Your task to perform on an android device: allow notifications from all sites in the chrome app Image 0: 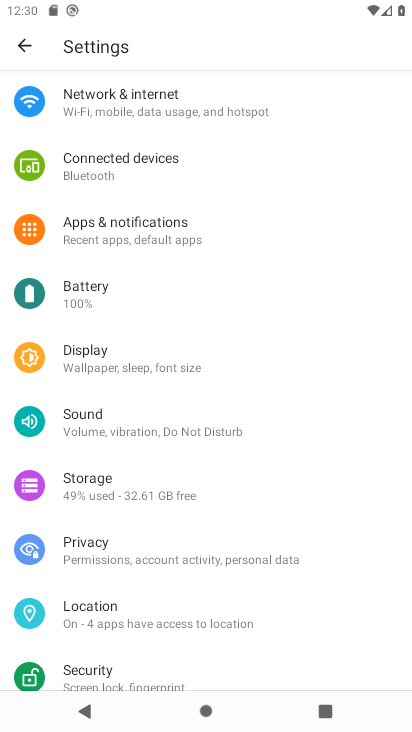
Step 0: press home button
Your task to perform on an android device: allow notifications from all sites in the chrome app Image 1: 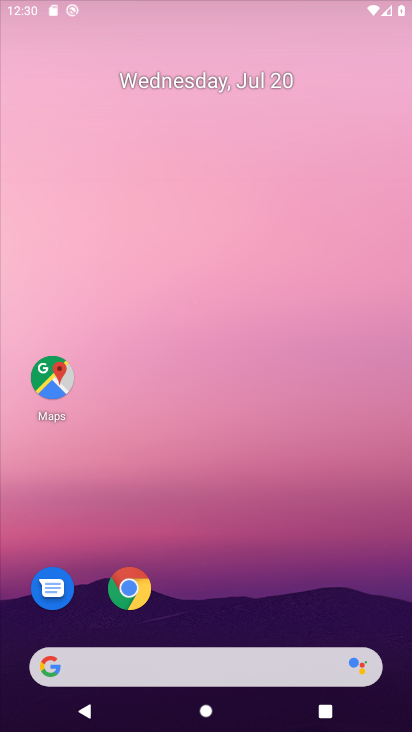
Step 1: drag from (172, 526) to (172, 159)
Your task to perform on an android device: allow notifications from all sites in the chrome app Image 2: 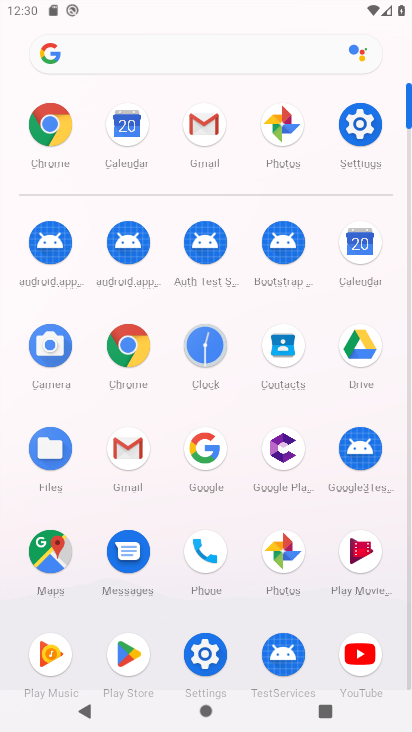
Step 2: click (135, 342)
Your task to perform on an android device: allow notifications from all sites in the chrome app Image 3: 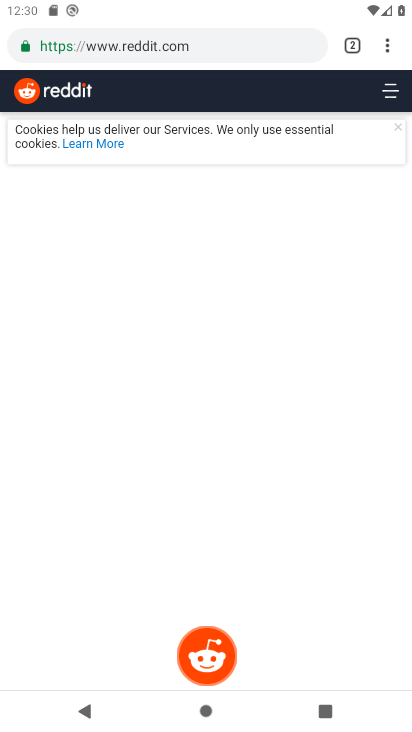
Step 3: click (385, 37)
Your task to perform on an android device: allow notifications from all sites in the chrome app Image 4: 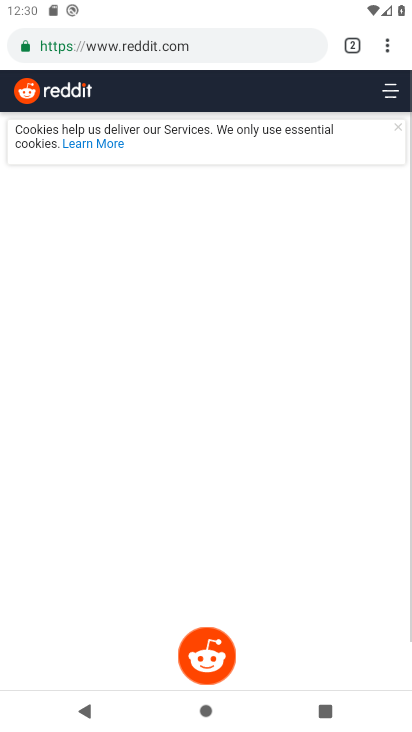
Step 4: click (404, 44)
Your task to perform on an android device: allow notifications from all sites in the chrome app Image 5: 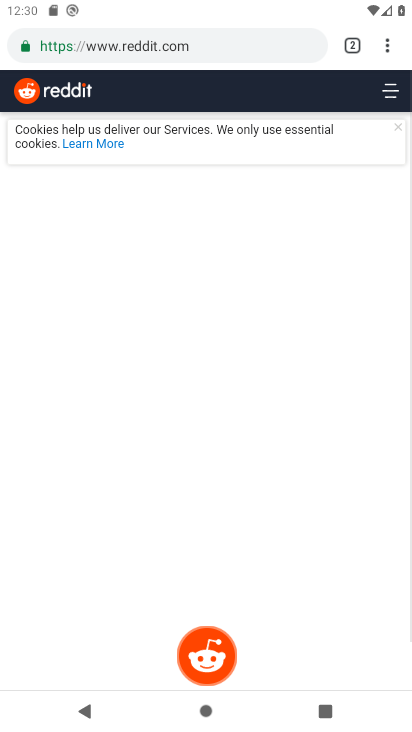
Step 5: click (400, 44)
Your task to perform on an android device: allow notifications from all sites in the chrome app Image 6: 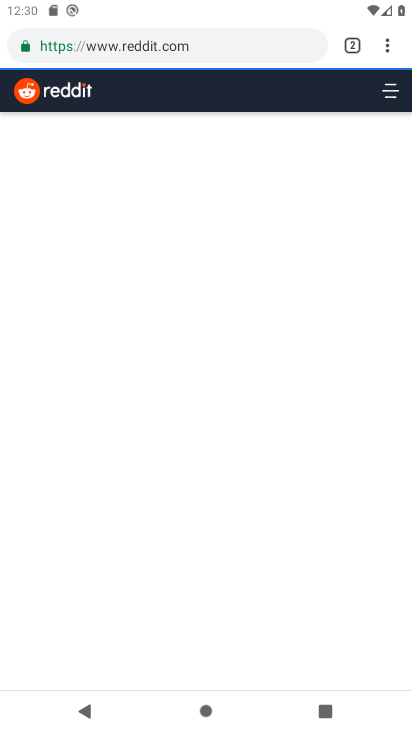
Step 6: click (400, 44)
Your task to perform on an android device: allow notifications from all sites in the chrome app Image 7: 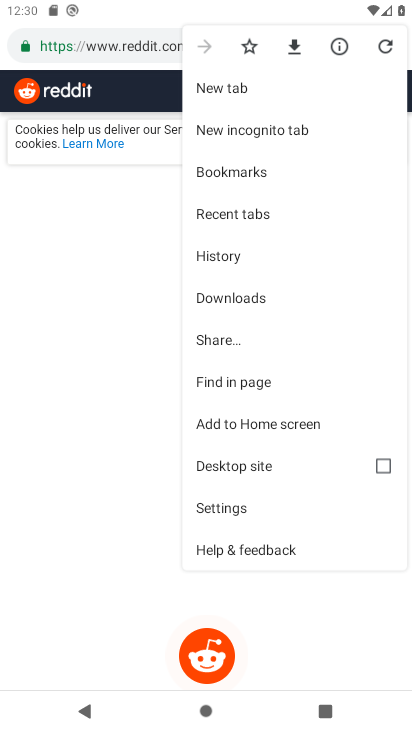
Step 7: click (239, 511)
Your task to perform on an android device: allow notifications from all sites in the chrome app Image 8: 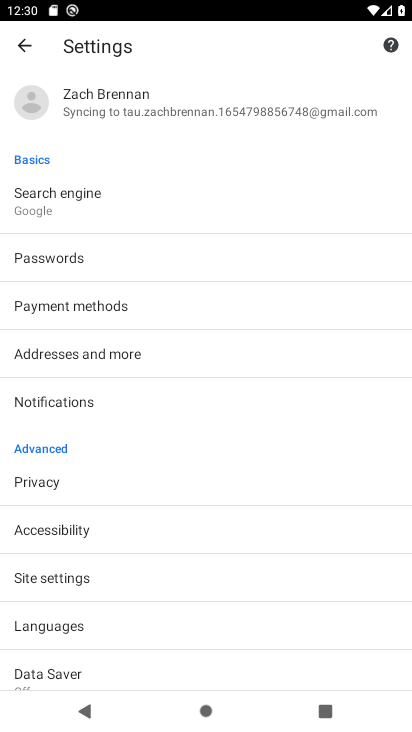
Step 8: click (78, 564)
Your task to perform on an android device: allow notifications from all sites in the chrome app Image 9: 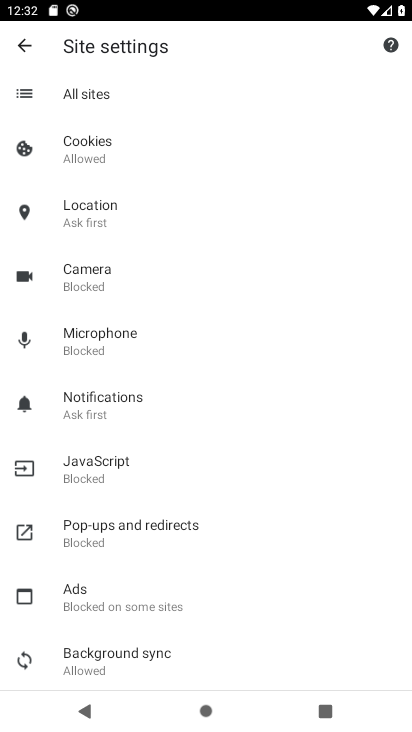
Step 9: click (97, 154)
Your task to perform on an android device: allow notifications from all sites in the chrome app Image 10: 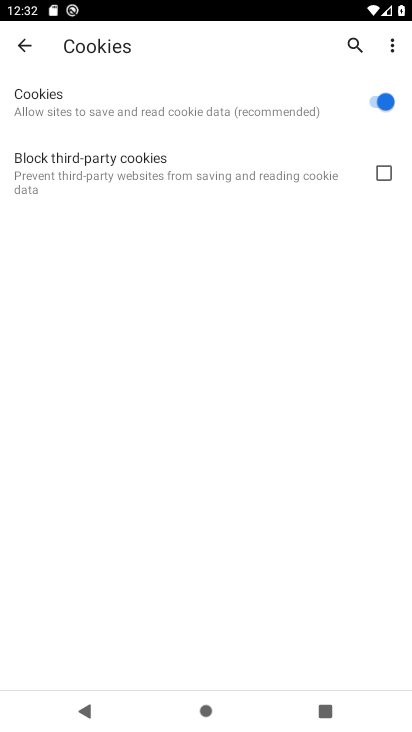
Step 10: click (21, 46)
Your task to perform on an android device: allow notifications from all sites in the chrome app Image 11: 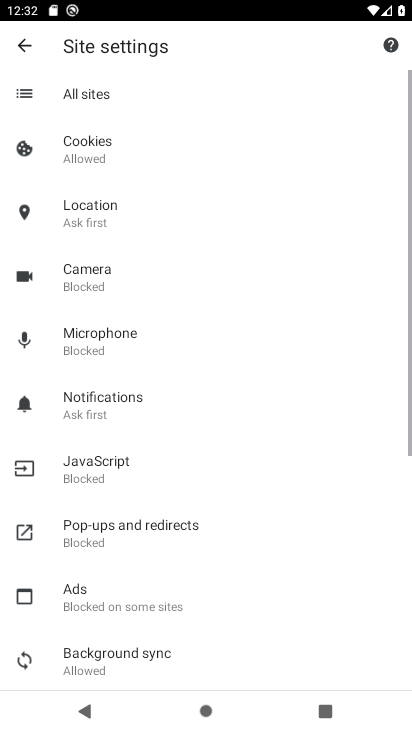
Step 11: click (99, 325)
Your task to perform on an android device: allow notifications from all sites in the chrome app Image 12: 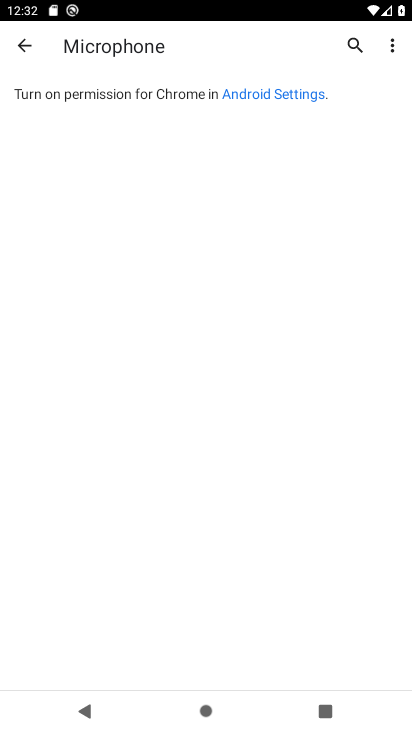
Step 12: click (19, 39)
Your task to perform on an android device: allow notifications from all sites in the chrome app Image 13: 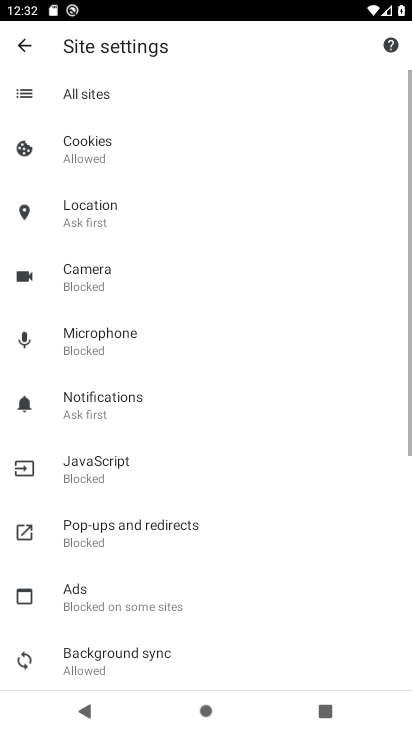
Step 13: click (95, 494)
Your task to perform on an android device: allow notifications from all sites in the chrome app Image 14: 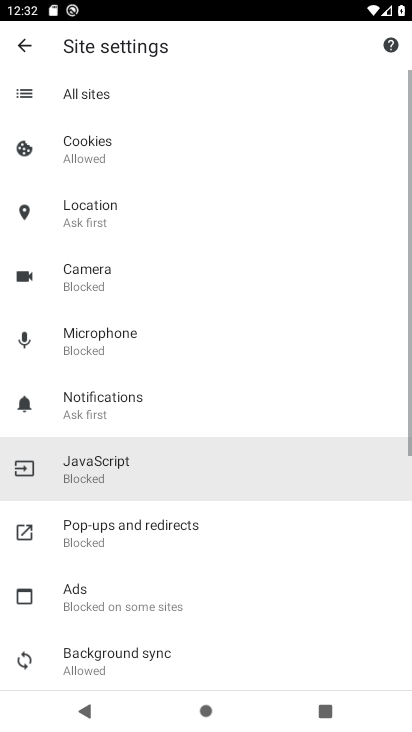
Step 14: click (94, 492)
Your task to perform on an android device: allow notifications from all sites in the chrome app Image 15: 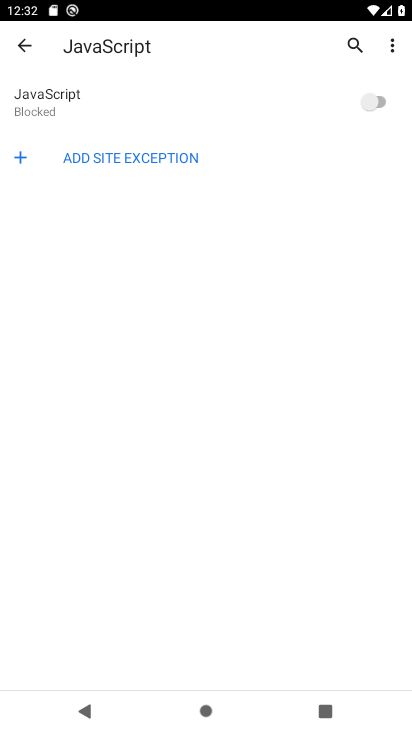
Step 15: click (379, 96)
Your task to perform on an android device: allow notifications from all sites in the chrome app Image 16: 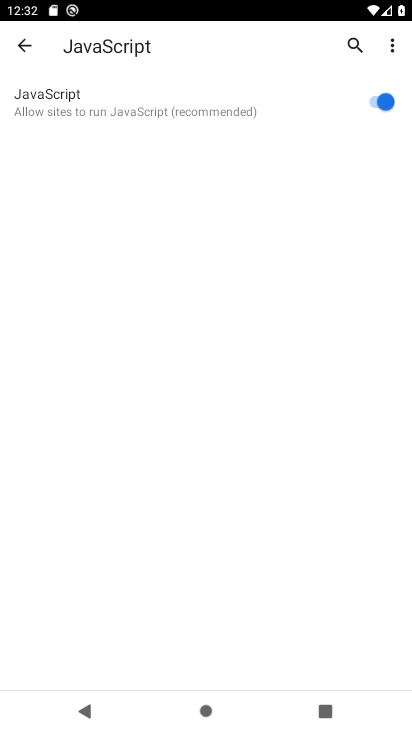
Step 16: task complete